Your task to perform on an android device: Go to privacy settings Image 0: 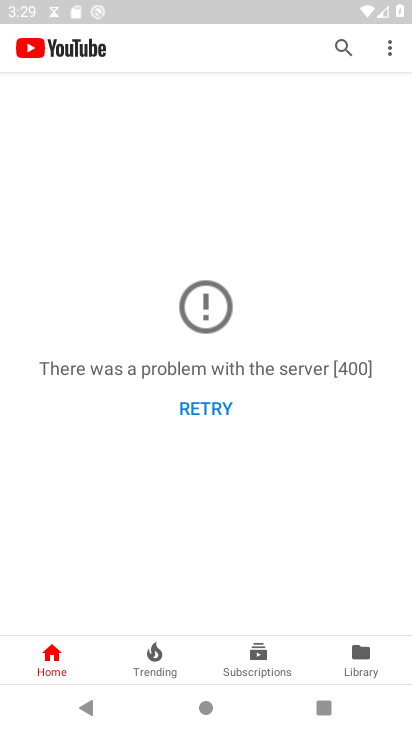
Step 0: press back button
Your task to perform on an android device: Go to privacy settings Image 1: 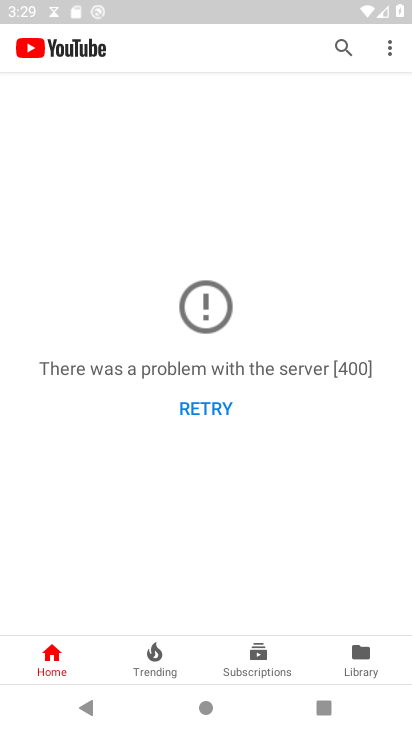
Step 1: press back button
Your task to perform on an android device: Go to privacy settings Image 2: 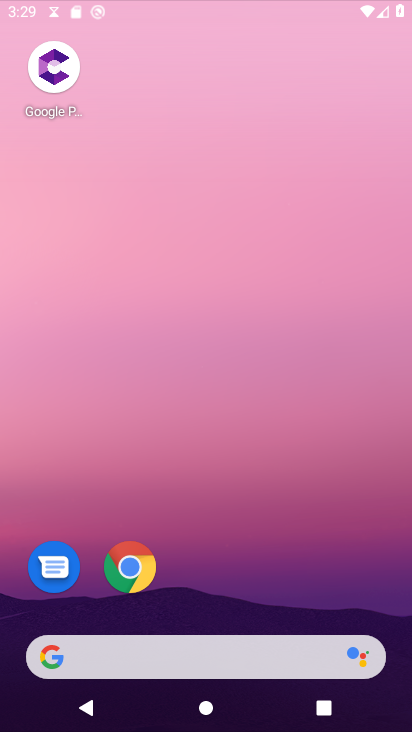
Step 2: press back button
Your task to perform on an android device: Go to privacy settings Image 3: 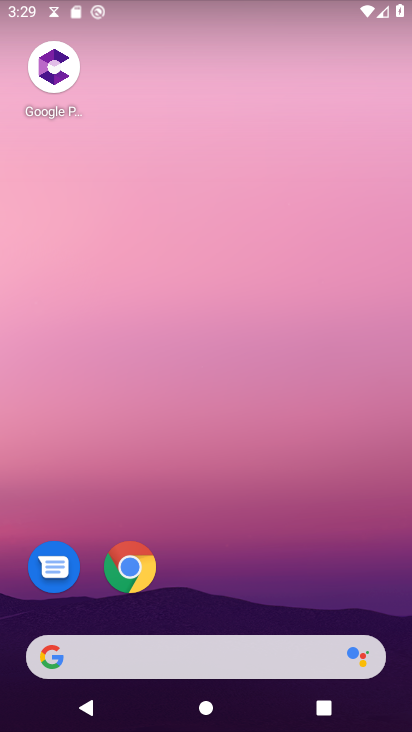
Step 3: press home button
Your task to perform on an android device: Go to privacy settings Image 4: 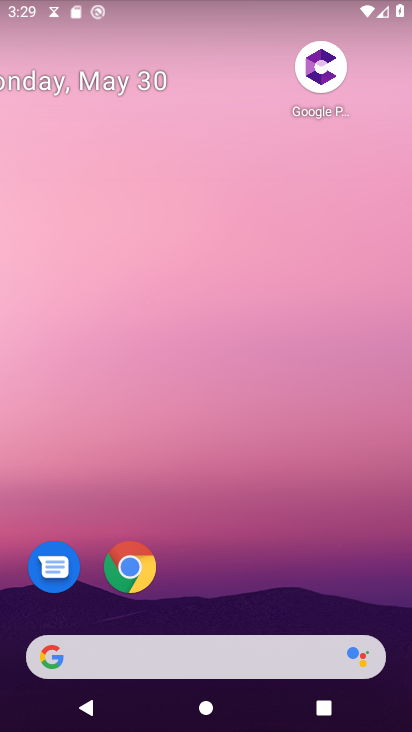
Step 4: press home button
Your task to perform on an android device: Go to privacy settings Image 5: 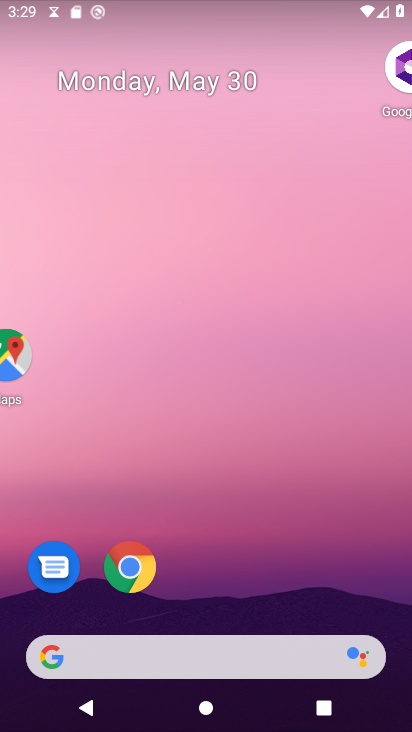
Step 5: click (230, 2)
Your task to perform on an android device: Go to privacy settings Image 6: 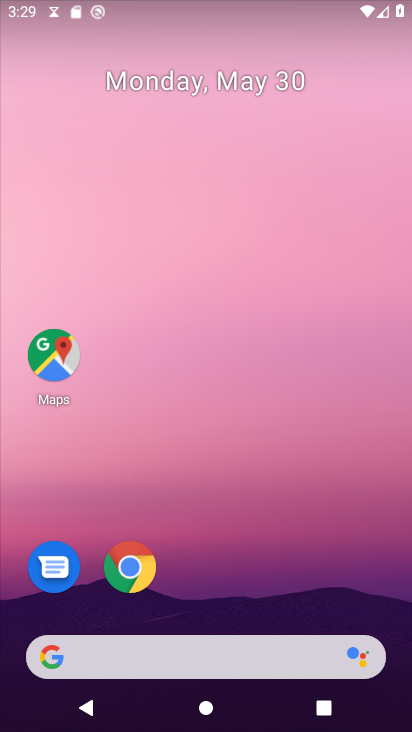
Step 6: drag from (283, 668) to (187, 44)
Your task to perform on an android device: Go to privacy settings Image 7: 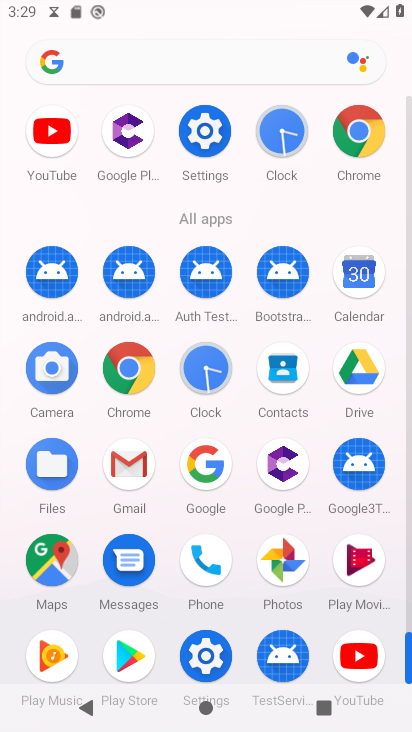
Step 7: drag from (233, 527) to (183, 94)
Your task to perform on an android device: Go to privacy settings Image 8: 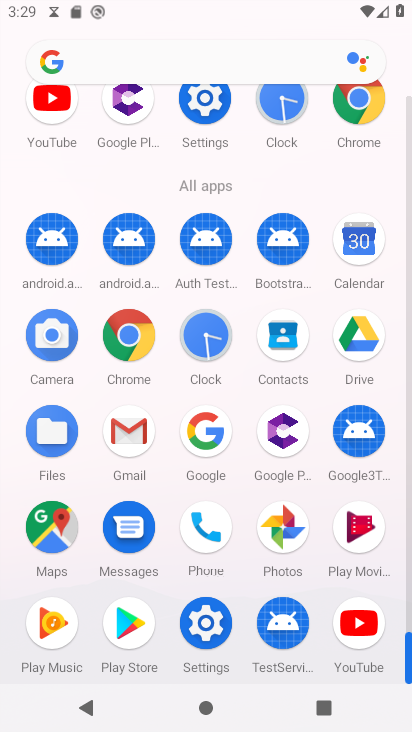
Step 8: click (203, 631)
Your task to perform on an android device: Go to privacy settings Image 9: 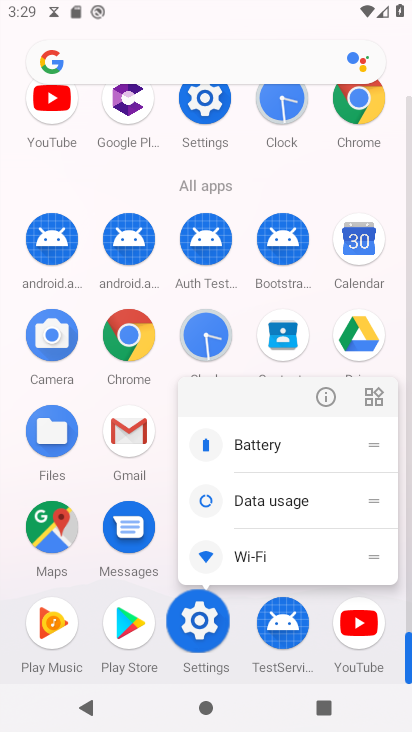
Step 9: click (195, 628)
Your task to perform on an android device: Go to privacy settings Image 10: 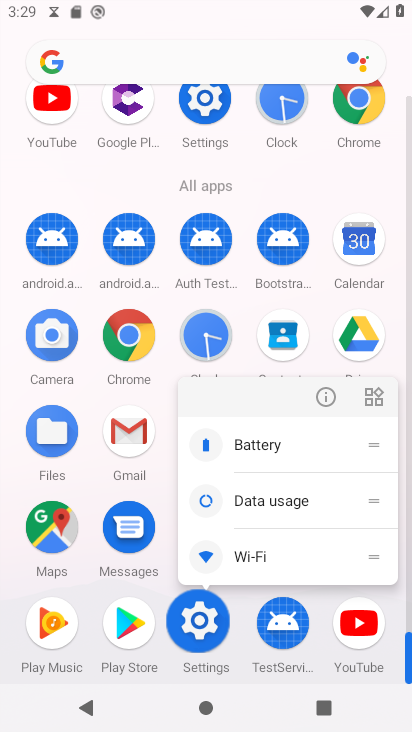
Step 10: click (198, 627)
Your task to perform on an android device: Go to privacy settings Image 11: 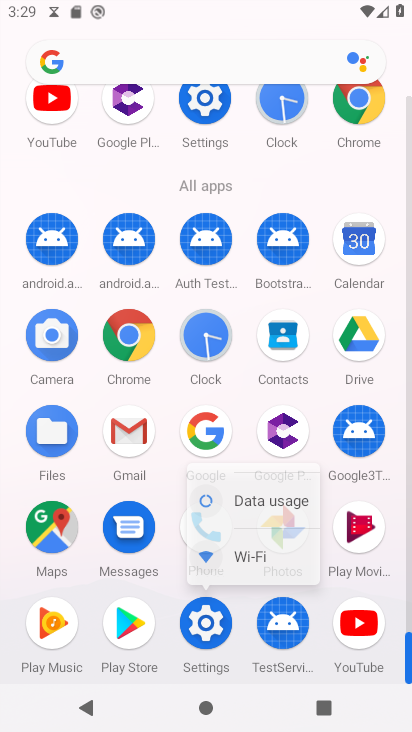
Step 11: click (201, 628)
Your task to perform on an android device: Go to privacy settings Image 12: 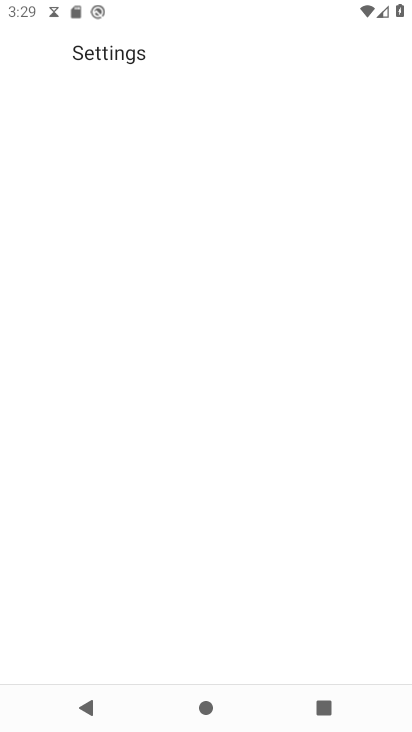
Step 12: click (200, 623)
Your task to perform on an android device: Go to privacy settings Image 13: 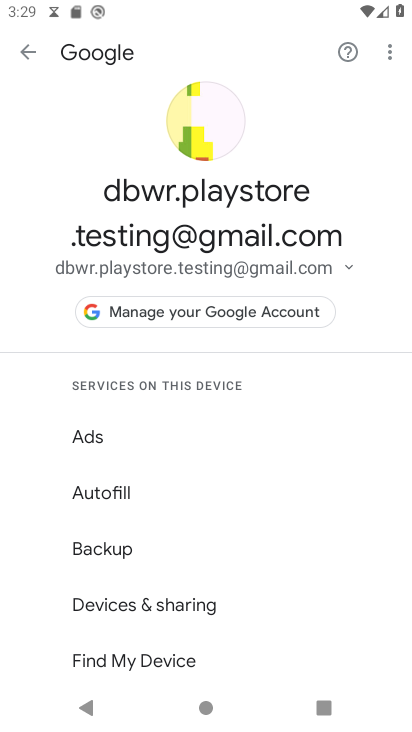
Step 13: press home button
Your task to perform on an android device: Go to privacy settings Image 14: 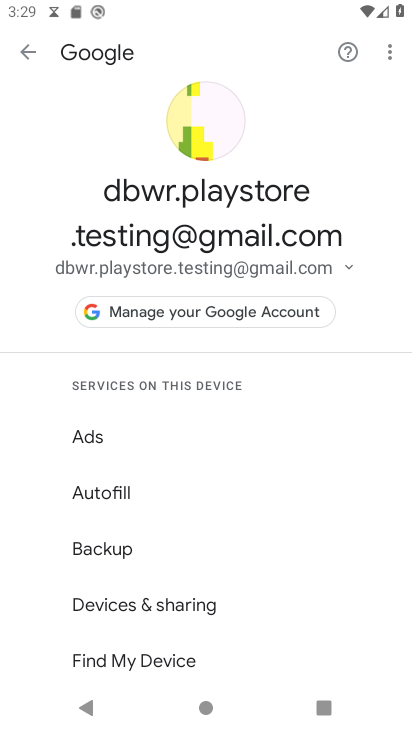
Step 14: press home button
Your task to perform on an android device: Go to privacy settings Image 15: 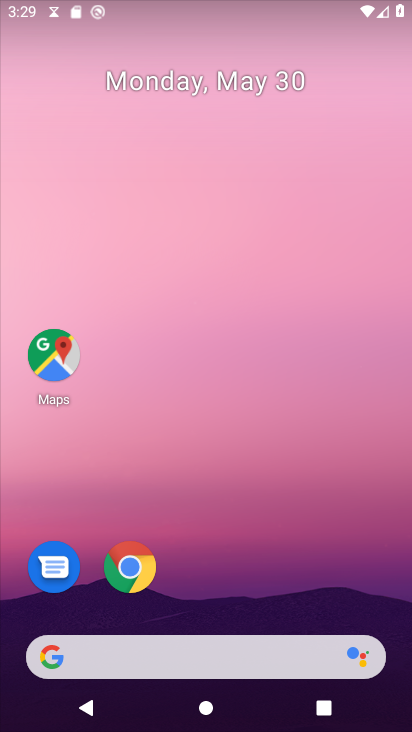
Step 15: press back button
Your task to perform on an android device: Go to privacy settings Image 16: 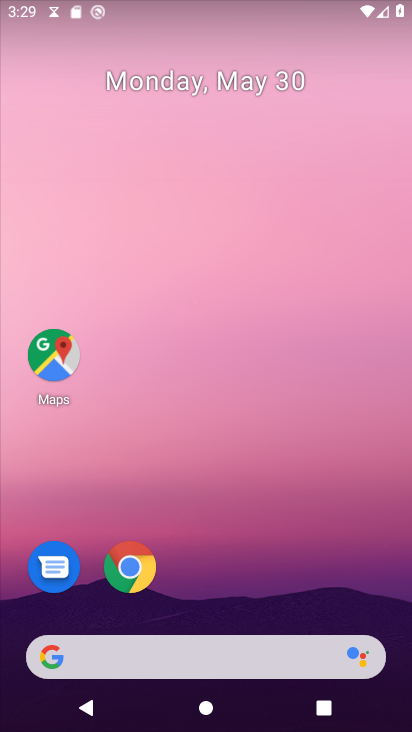
Step 16: press back button
Your task to perform on an android device: Go to privacy settings Image 17: 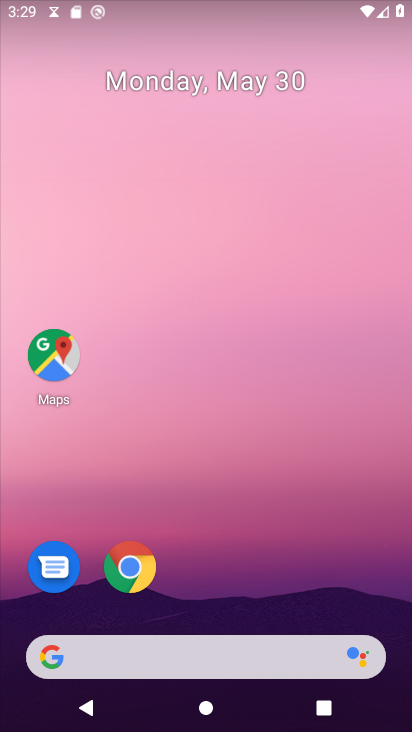
Step 17: drag from (268, 658) to (198, 238)
Your task to perform on an android device: Go to privacy settings Image 18: 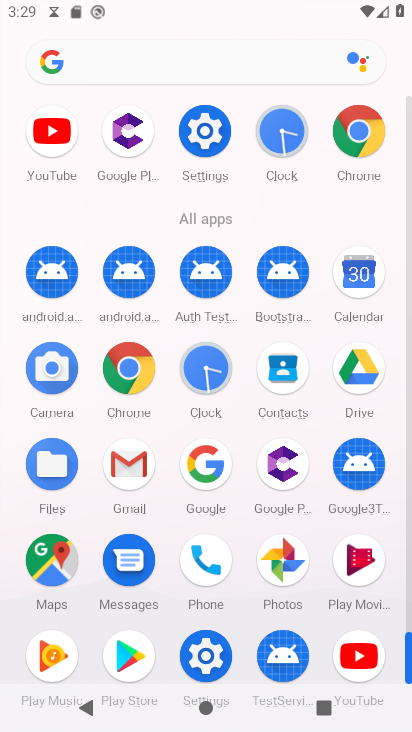
Step 18: click (211, 126)
Your task to perform on an android device: Go to privacy settings Image 19: 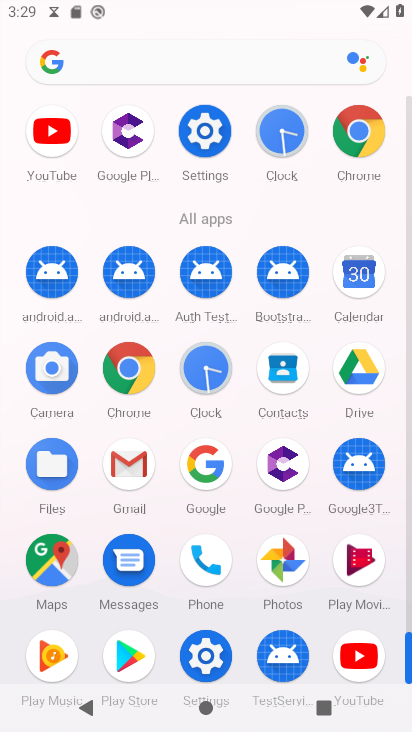
Step 19: click (212, 127)
Your task to perform on an android device: Go to privacy settings Image 20: 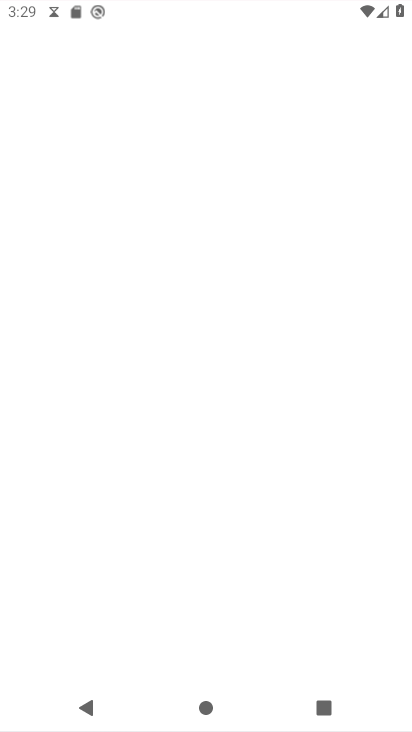
Step 20: click (210, 129)
Your task to perform on an android device: Go to privacy settings Image 21: 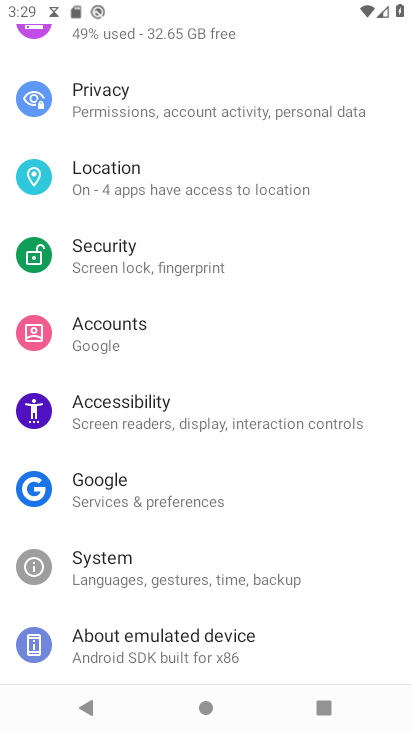
Step 21: click (118, 102)
Your task to perform on an android device: Go to privacy settings Image 22: 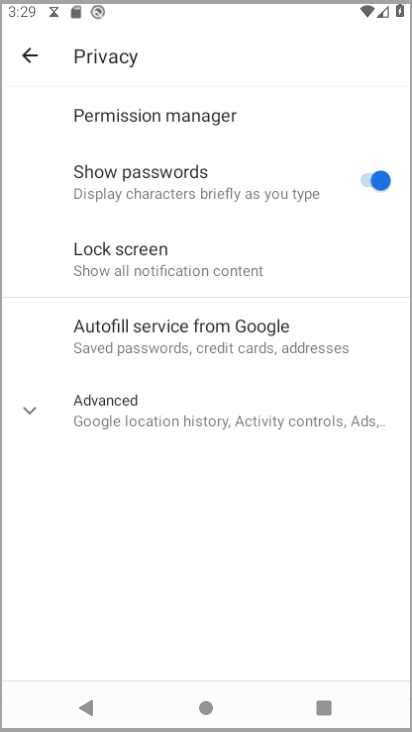
Step 22: click (118, 103)
Your task to perform on an android device: Go to privacy settings Image 23: 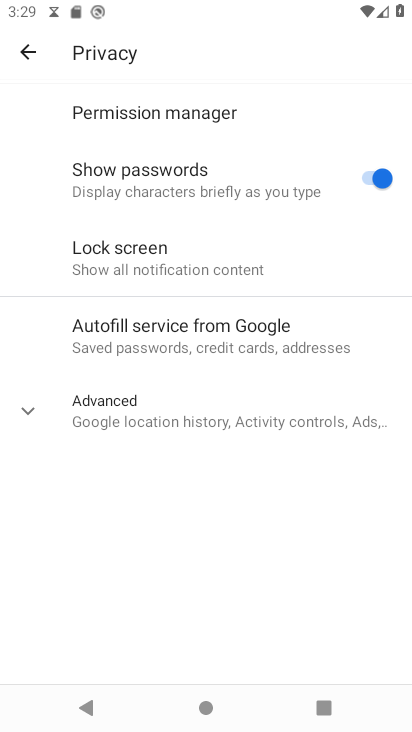
Step 23: click (119, 104)
Your task to perform on an android device: Go to privacy settings Image 24: 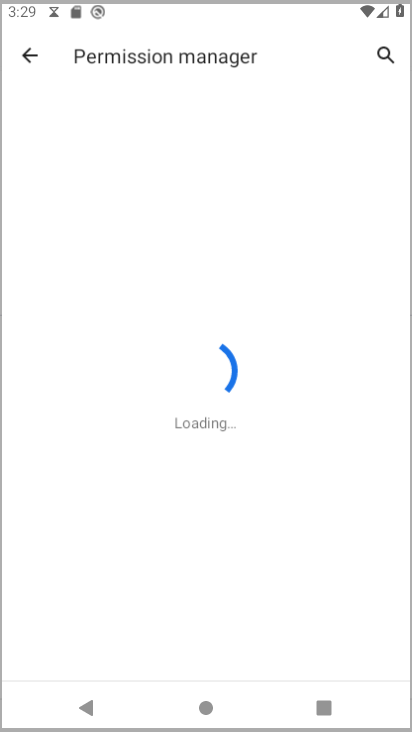
Step 24: task complete